Your task to perform on an android device: Play the last video I watched on Youtube Image 0: 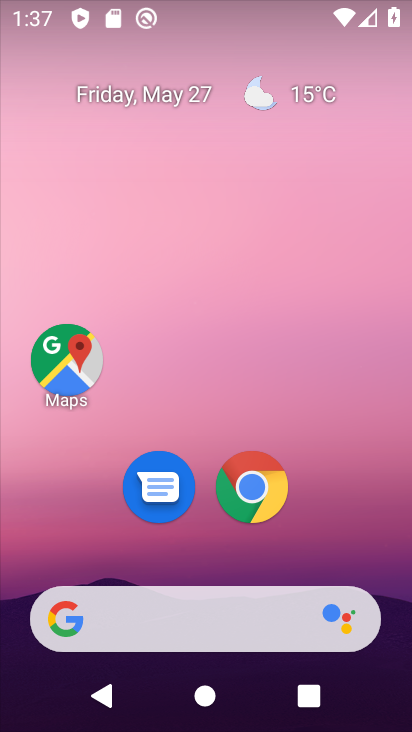
Step 0: drag from (320, 516) to (346, 69)
Your task to perform on an android device: Play the last video I watched on Youtube Image 1: 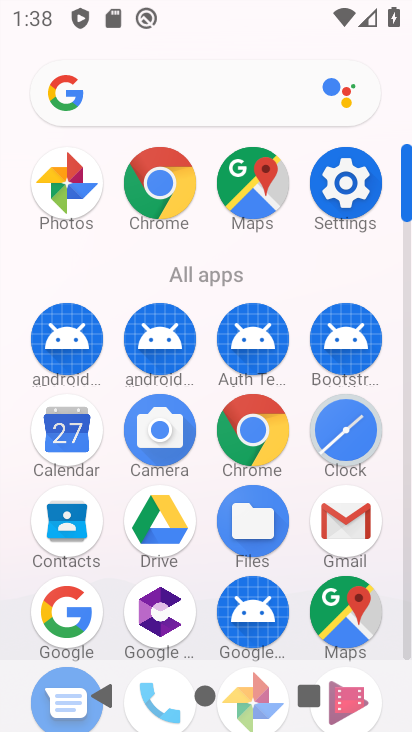
Step 1: drag from (207, 541) to (228, 238)
Your task to perform on an android device: Play the last video I watched on Youtube Image 2: 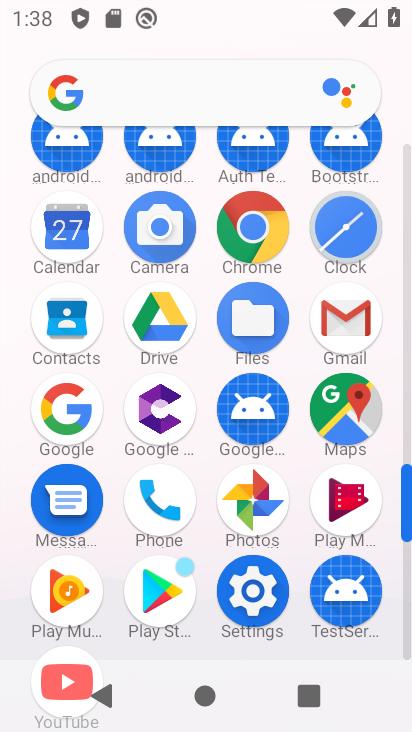
Step 2: drag from (107, 613) to (117, 345)
Your task to perform on an android device: Play the last video I watched on Youtube Image 3: 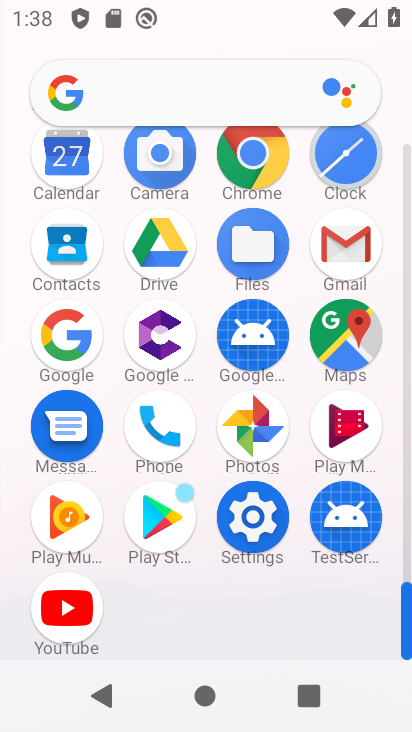
Step 3: click (51, 607)
Your task to perform on an android device: Play the last video I watched on Youtube Image 4: 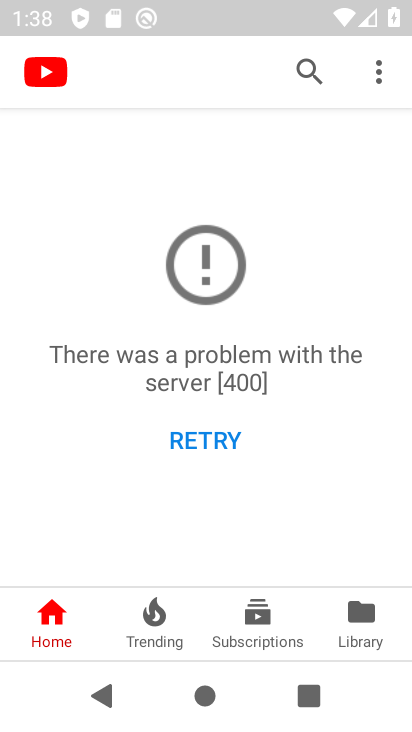
Step 4: click (180, 434)
Your task to perform on an android device: Play the last video I watched on Youtube Image 5: 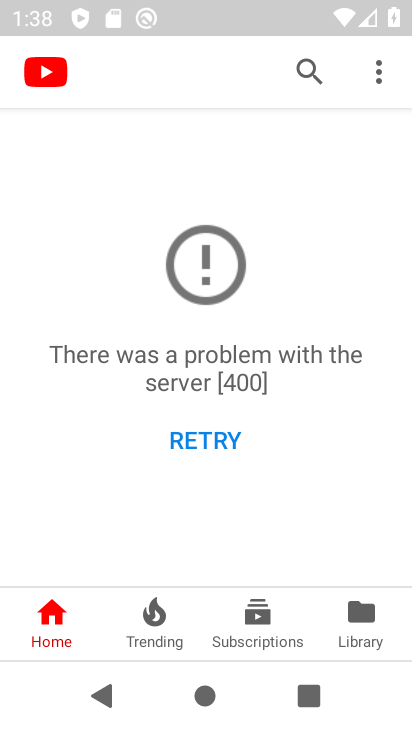
Step 5: task complete